Your task to perform on an android device: Open Chrome and go to settings Image 0: 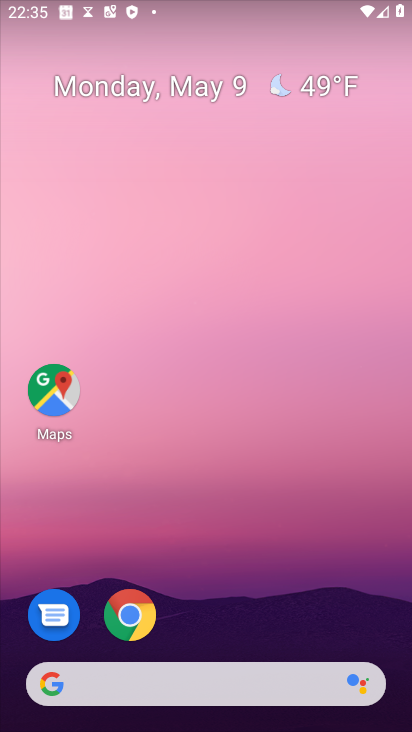
Step 0: click (135, 612)
Your task to perform on an android device: Open Chrome and go to settings Image 1: 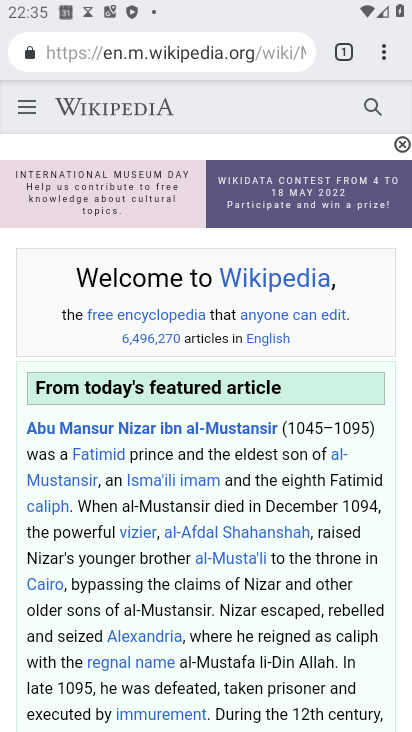
Step 1: task complete